Your task to perform on an android device: Search for seafood restaurants on Google Maps Image 0: 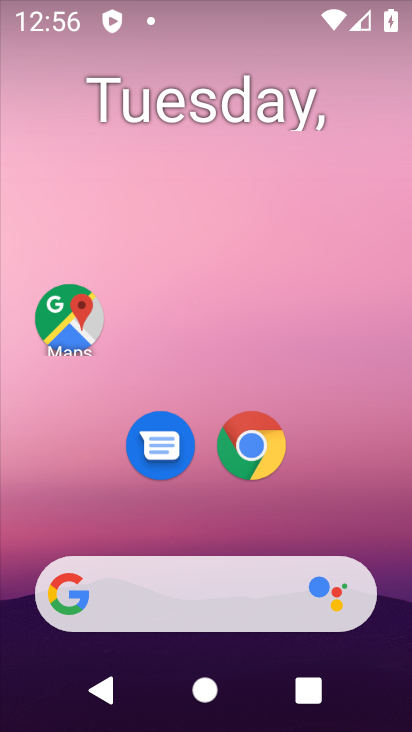
Step 0: drag from (170, 605) to (201, 182)
Your task to perform on an android device: Search for seafood restaurants on Google Maps Image 1: 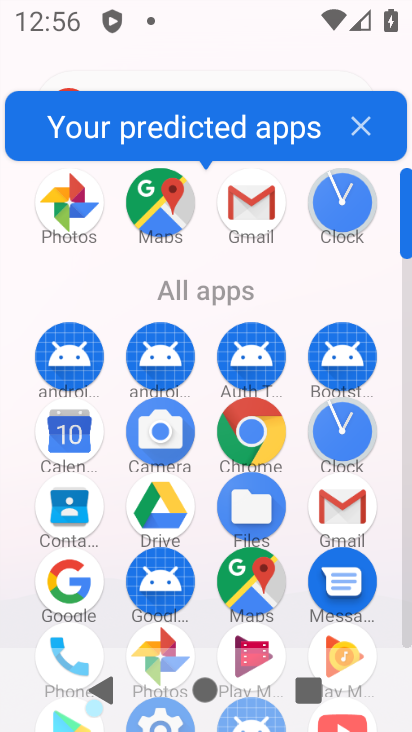
Step 1: click (179, 207)
Your task to perform on an android device: Search for seafood restaurants on Google Maps Image 2: 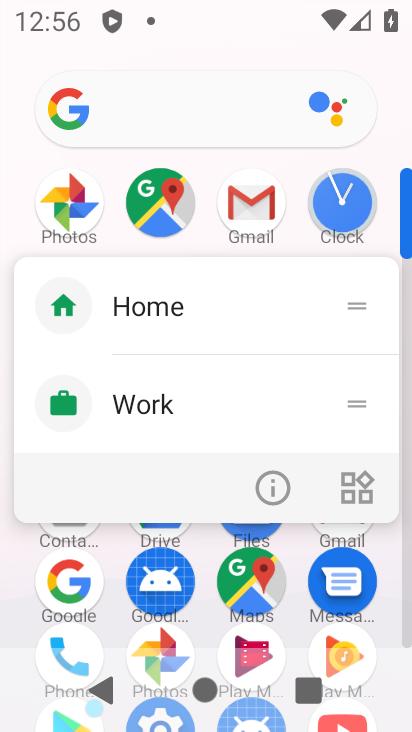
Step 2: click (124, 194)
Your task to perform on an android device: Search for seafood restaurants on Google Maps Image 3: 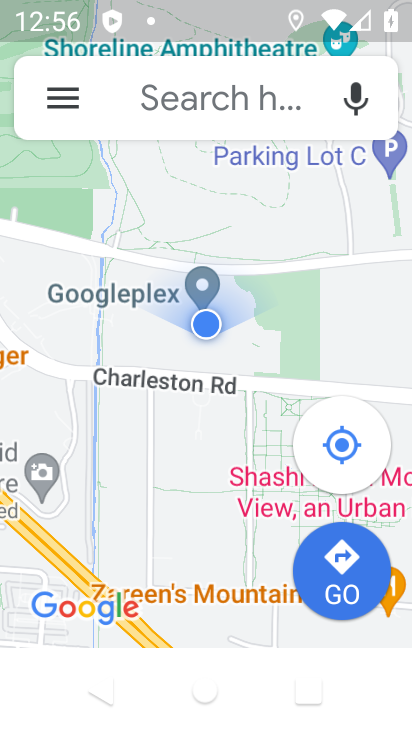
Step 3: click (189, 87)
Your task to perform on an android device: Search for seafood restaurants on Google Maps Image 4: 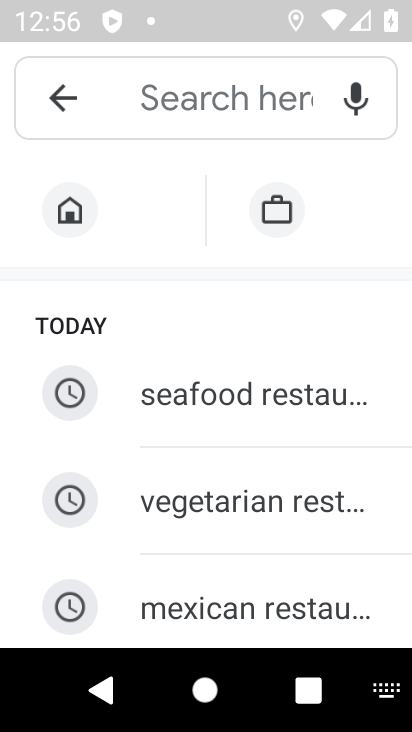
Step 4: click (226, 416)
Your task to perform on an android device: Search for seafood restaurants on Google Maps Image 5: 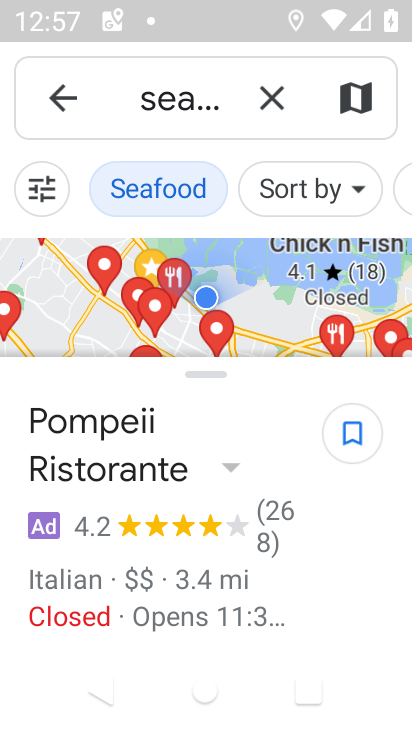
Step 5: click (137, 298)
Your task to perform on an android device: Search for seafood restaurants on Google Maps Image 6: 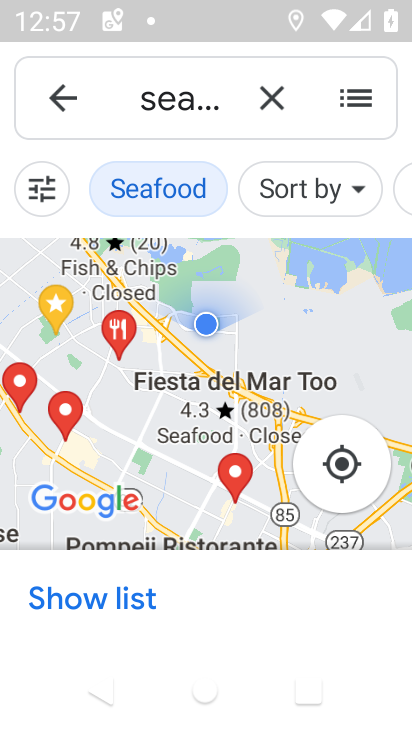
Step 6: task complete